Your task to perform on an android device: open a bookmark in the chrome app Image 0: 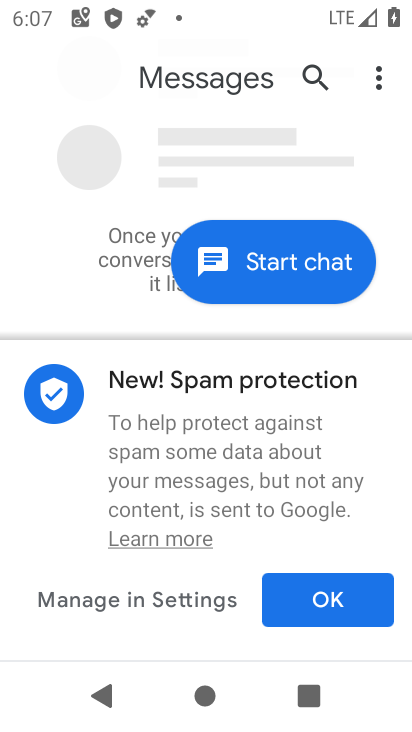
Step 0: press home button
Your task to perform on an android device: open a bookmark in the chrome app Image 1: 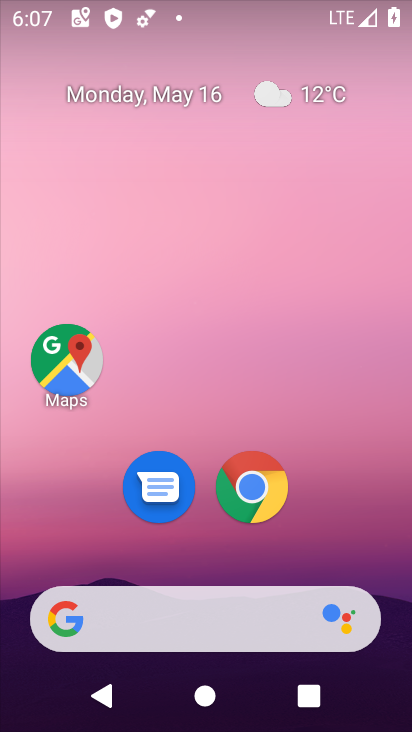
Step 1: click (253, 484)
Your task to perform on an android device: open a bookmark in the chrome app Image 2: 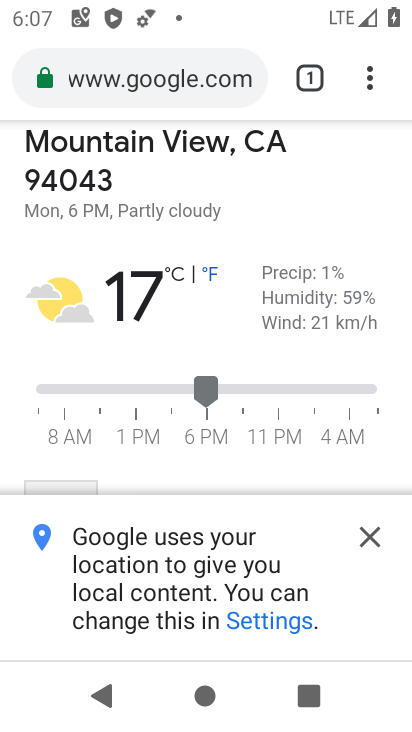
Step 2: drag from (375, 80) to (163, 280)
Your task to perform on an android device: open a bookmark in the chrome app Image 3: 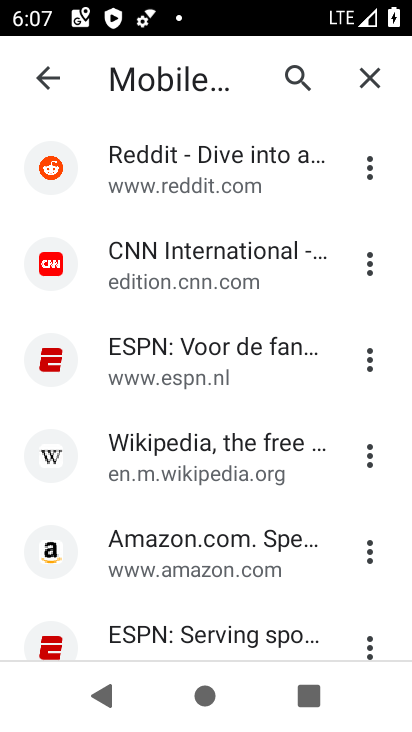
Step 3: click (200, 173)
Your task to perform on an android device: open a bookmark in the chrome app Image 4: 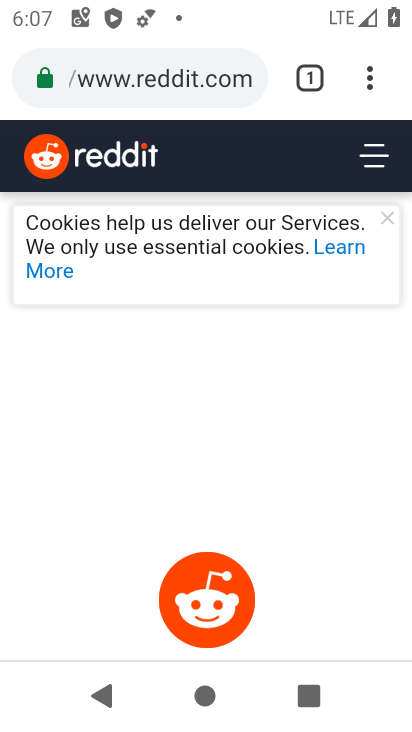
Step 4: task complete